Your task to perform on an android device: turn off sleep mode Image 0: 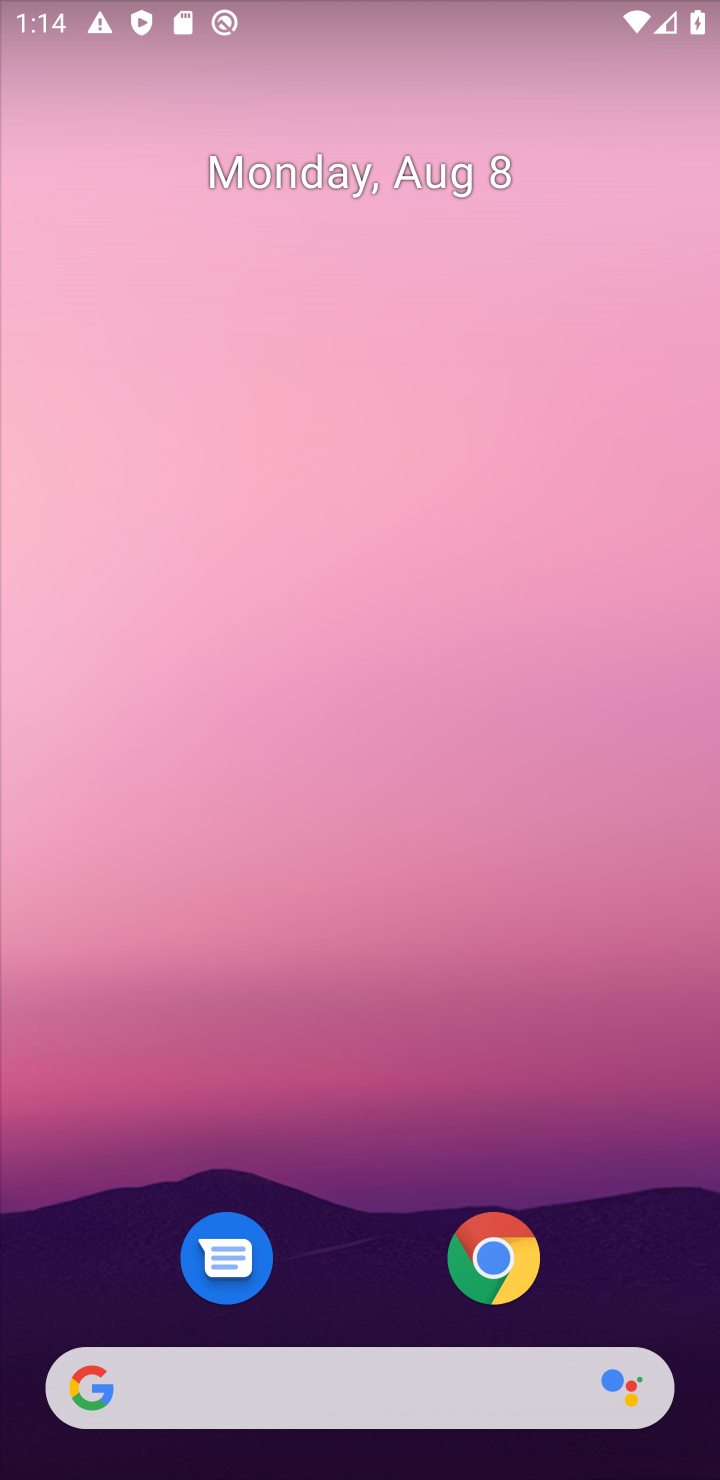
Step 0: drag from (422, 1337) to (507, 446)
Your task to perform on an android device: turn off sleep mode Image 1: 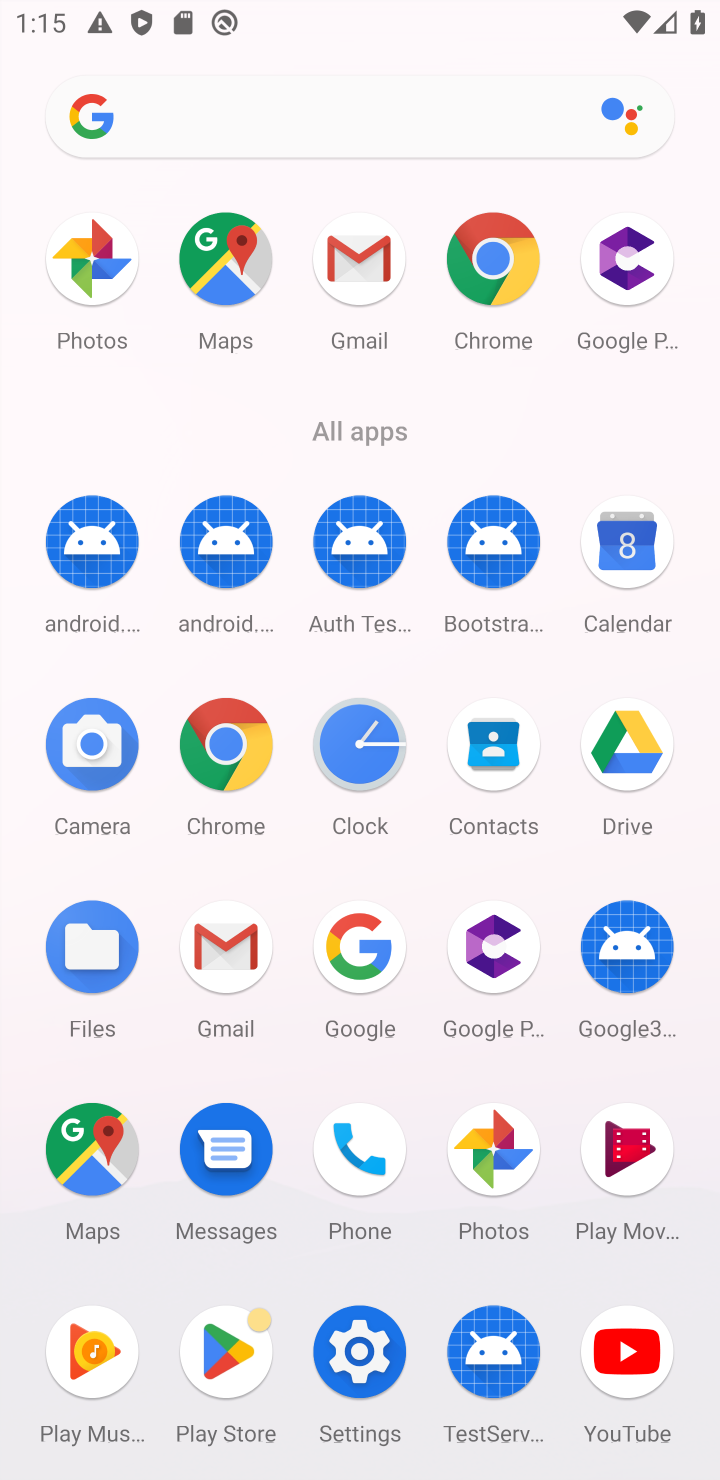
Step 1: click (344, 1381)
Your task to perform on an android device: turn off sleep mode Image 2: 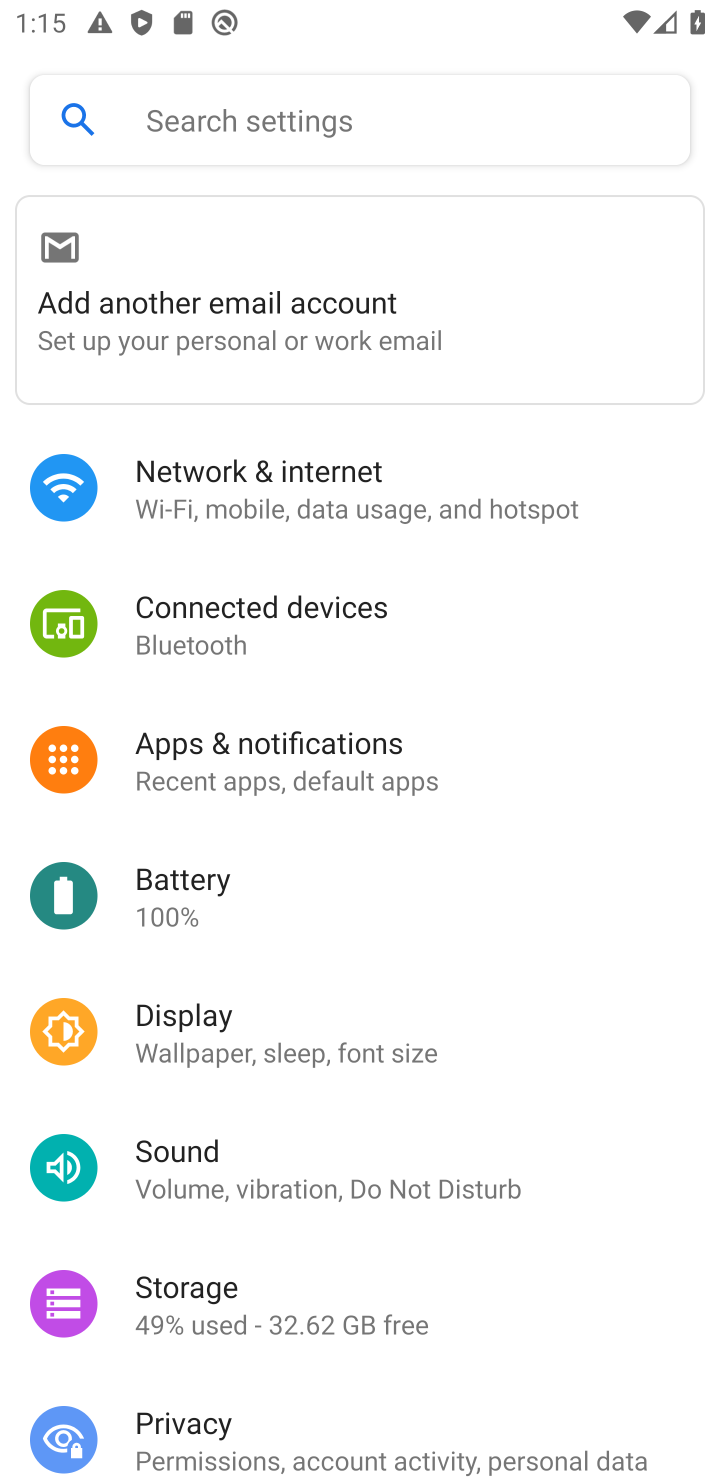
Step 2: drag from (306, 1136) to (336, 631)
Your task to perform on an android device: turn off sleep mode Image 3: 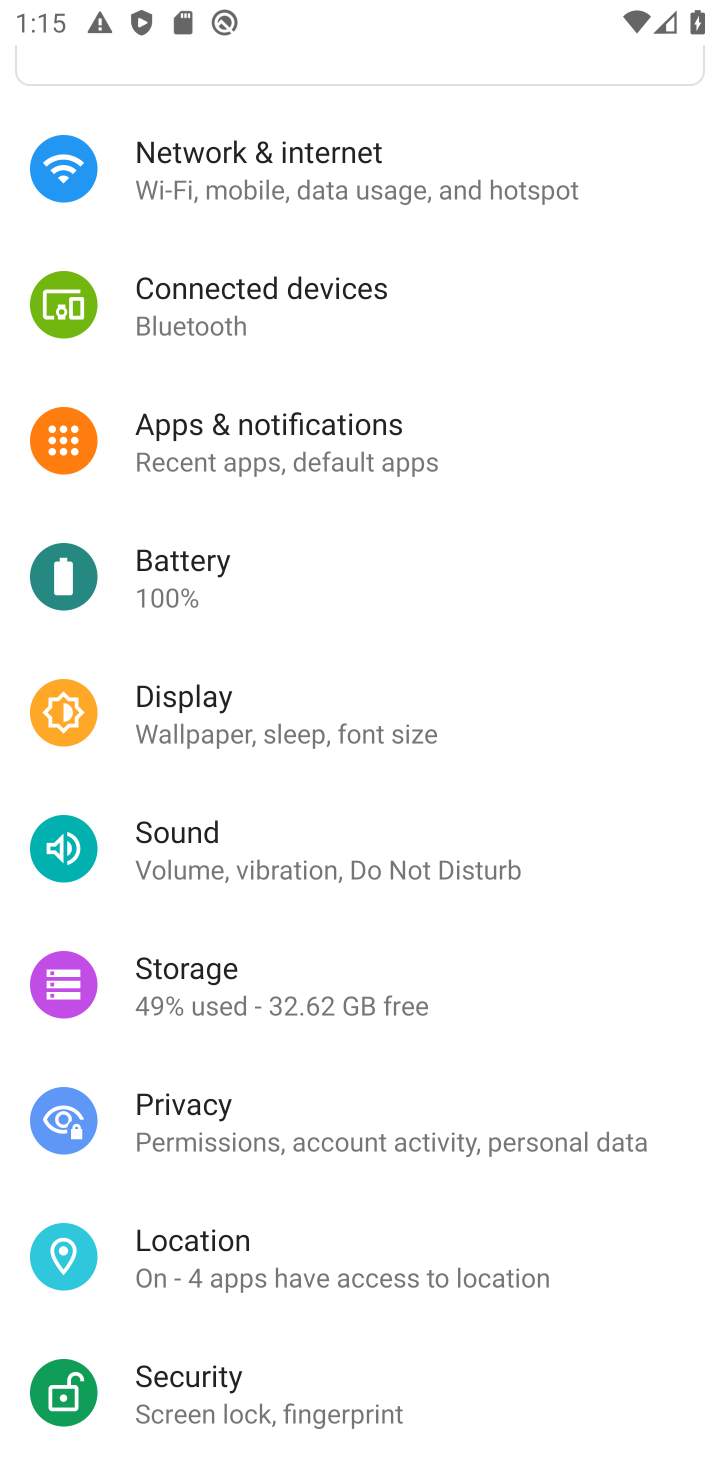
Step 3: click (311, 713)
Your task to perform on an android device: turn off sleep mode Image 4: 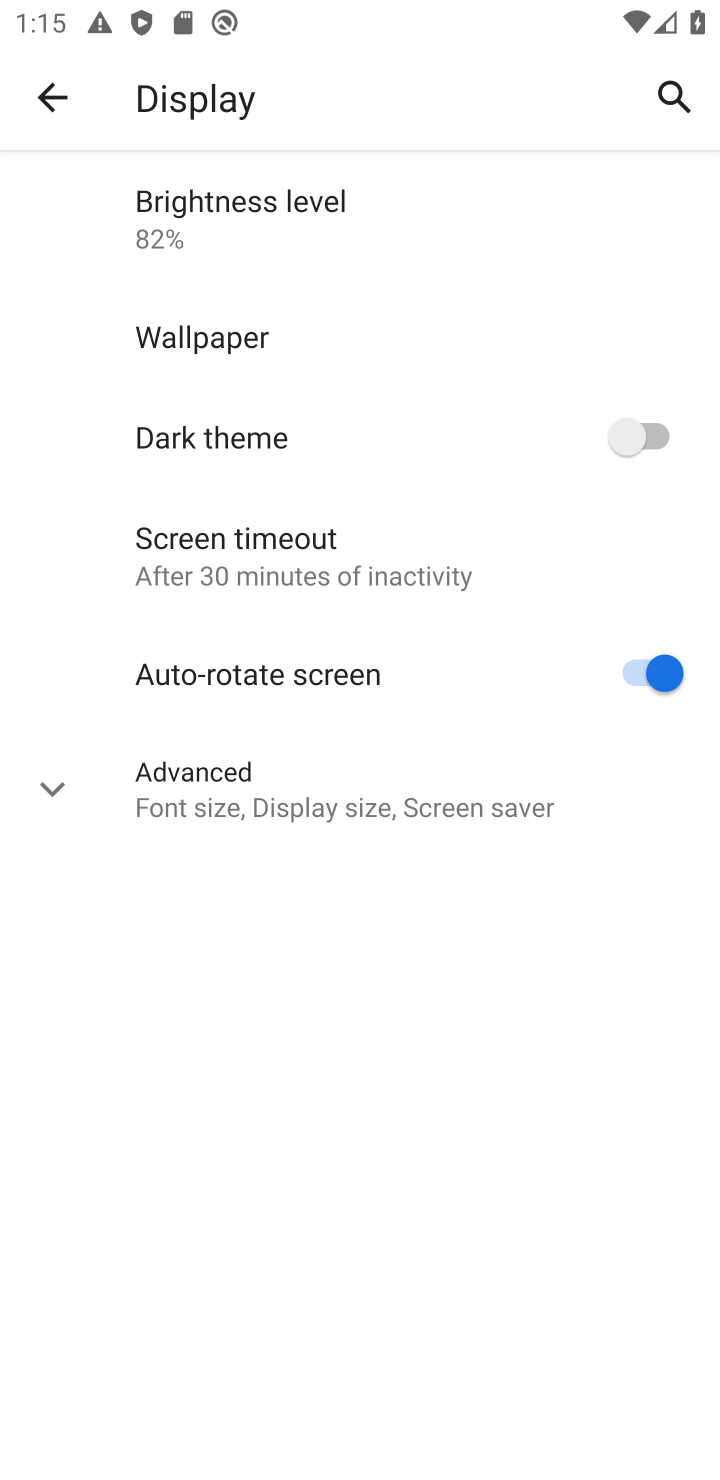
Step 4: click (356, 792)
Your task to perform on an android device: turn off sleep mode Image 5: 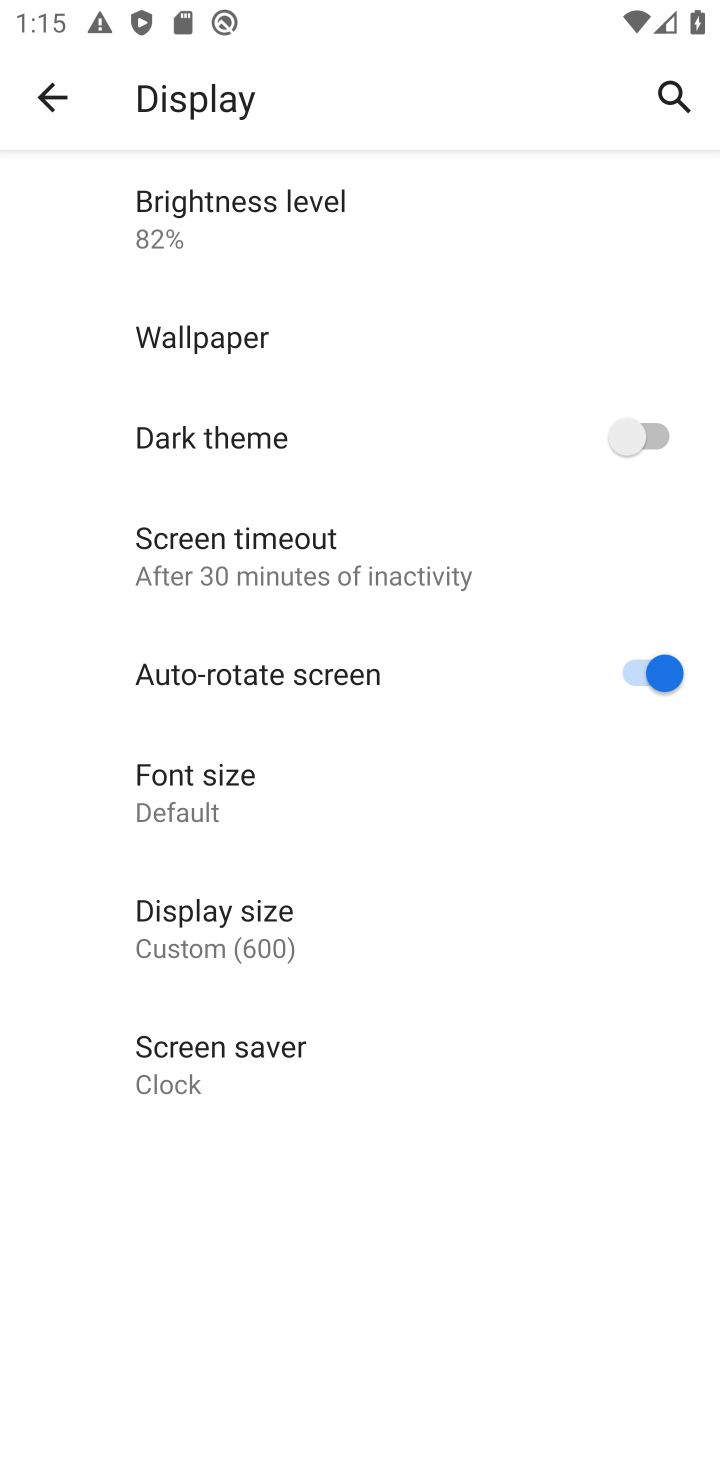
Step 5: task complete